Your task to perform on an android device: set the timer Image 0: 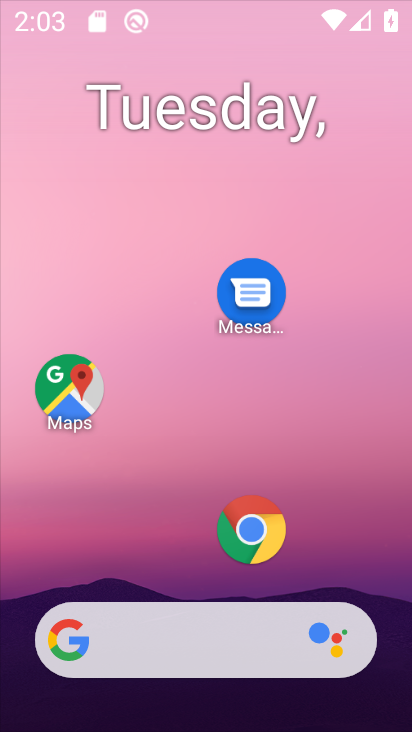
Step 0: drag from (165, 492) to (178, 226)
Your task to perform on an android device: set the timer Image 1: 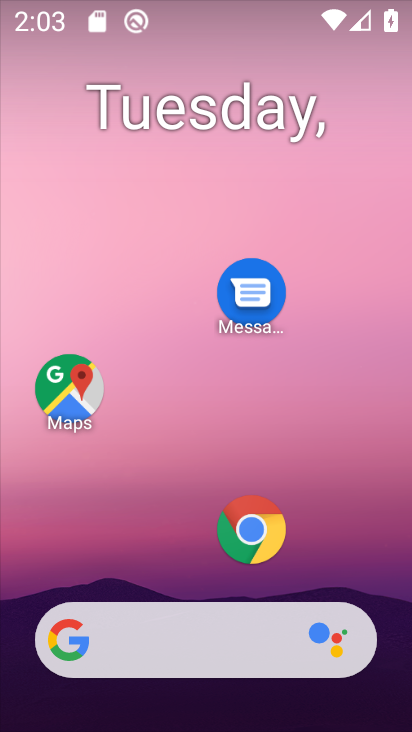
Step 1: drag from (176, 480) to (169, 164)
Your task to perform on an android device: set the timer Image 2: 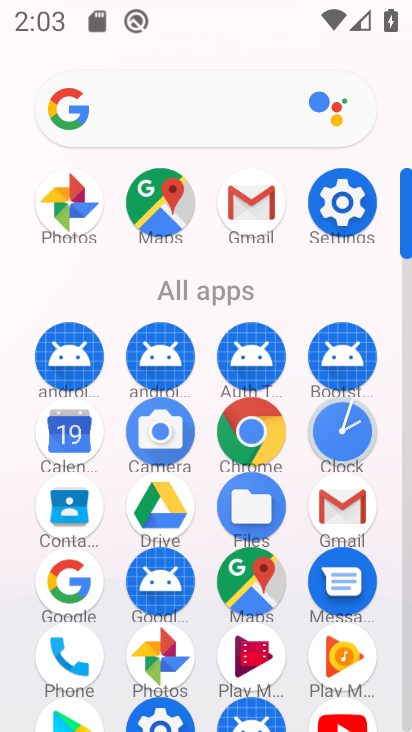
Step 2: click (343, 437)
Your task to perform on an android device: set the timer Image 3: 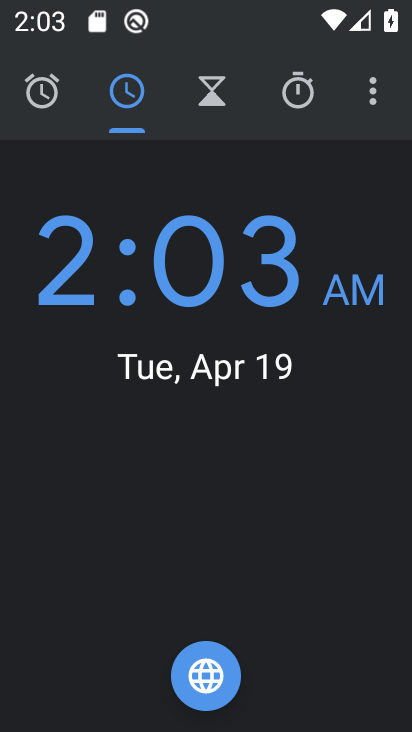
Step 3: click (216, 85)
Your task to perform on an android device: set the timer Image 4: 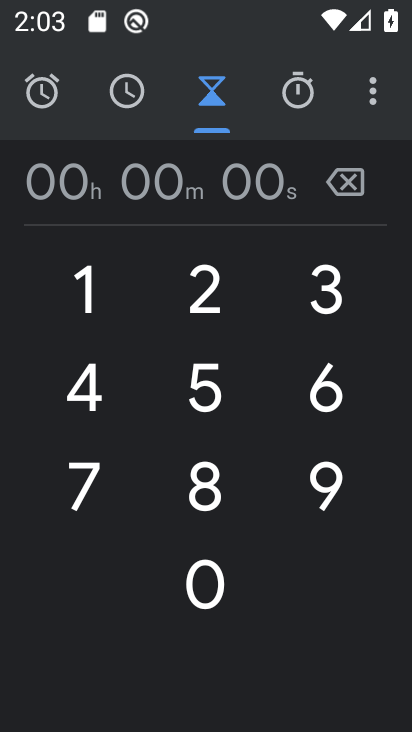
Step 4: click (207, 283)
Your task to perform on an android device: set the timer Image 5: 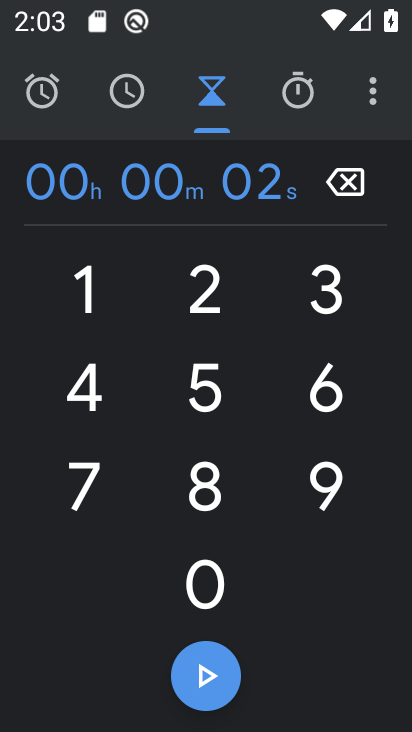
Step 5: click (207, 283)
Your task to perform on an android device: set the timer Image 6: 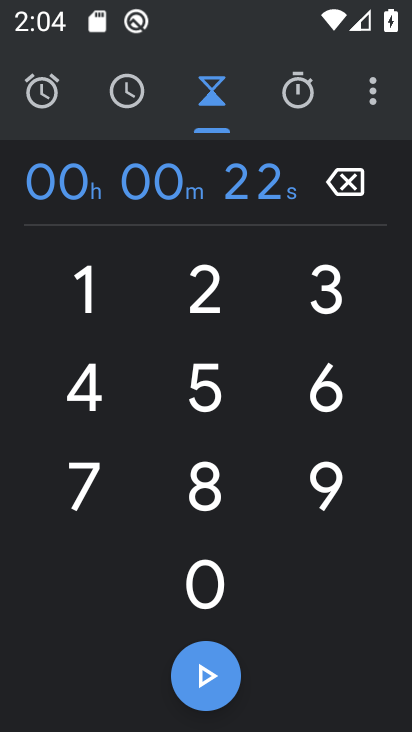
Step 6: task complete